Your task to perform on an android device: all mails in gmail Image 0: 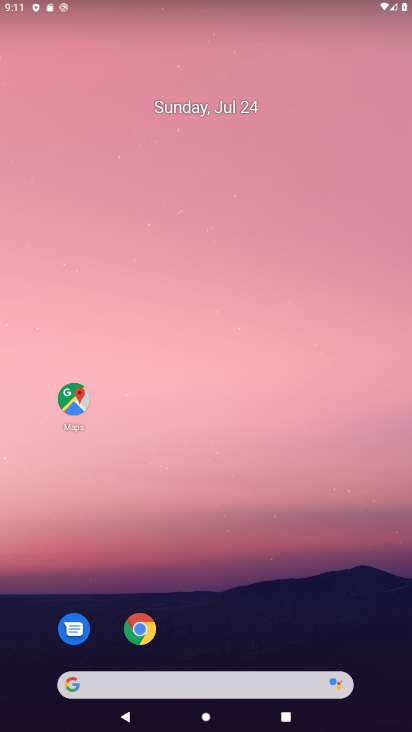
Step 0: drag from (253, 659) to (269, 88)
Your task to perform on an android device: all mails in gmail Image 1: 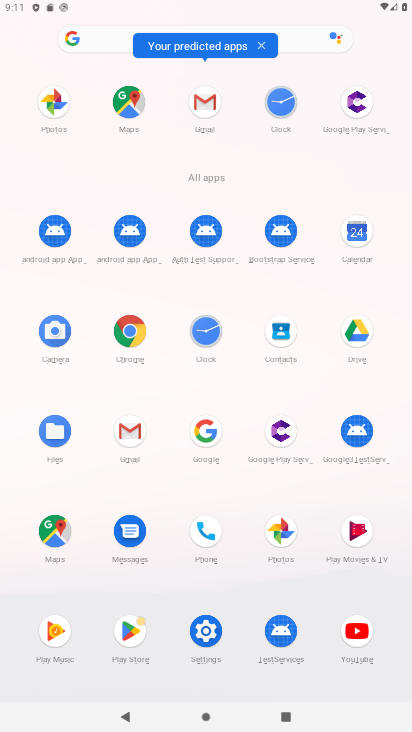
Step 1: click (191, 122)
Your task to perform on an android device: all mails in gmail Image 2: 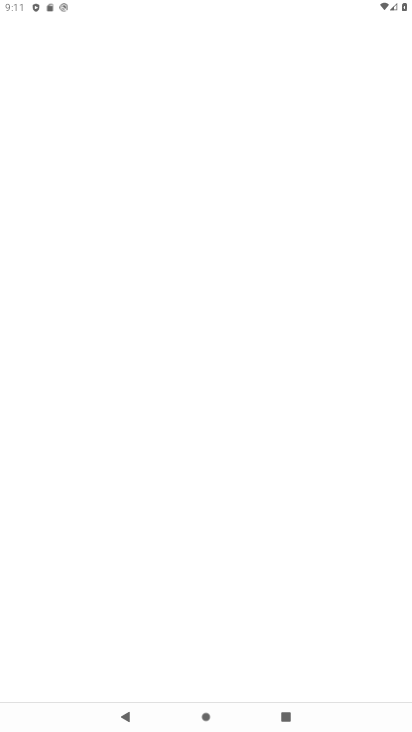
Step 2: task complete